Your task to perform on an android device: change the clock display to analog Image 0: 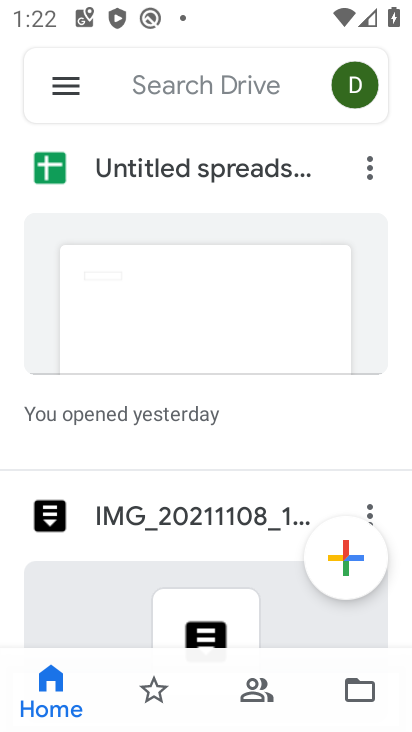
Step 0: press home button
Your task to perform on an android device: change the clock display to analog Image 1: 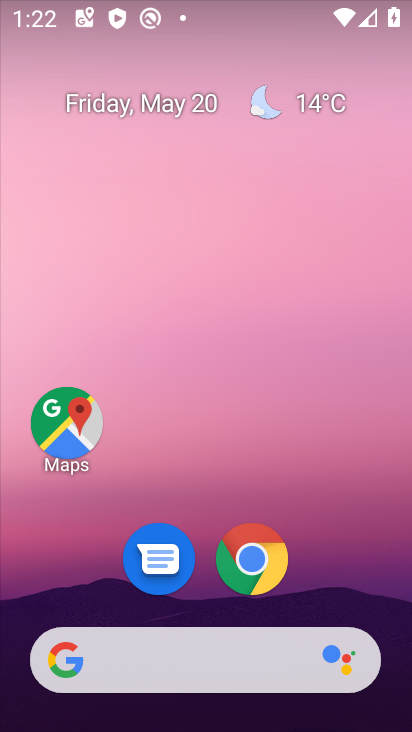
Step 1: drag from (361, 595) to (324, 190)
Your task to perform on an android device: change the clock display to analog Image 2: 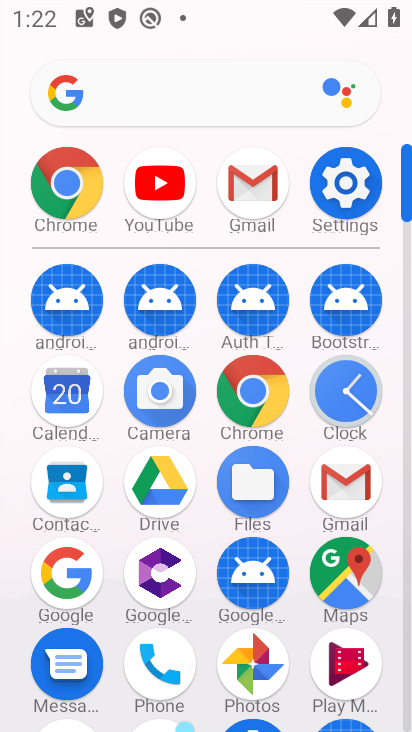
Step 2: click (340, 198)
Your task to perform on an android device: change the clock display to analog Image 3: 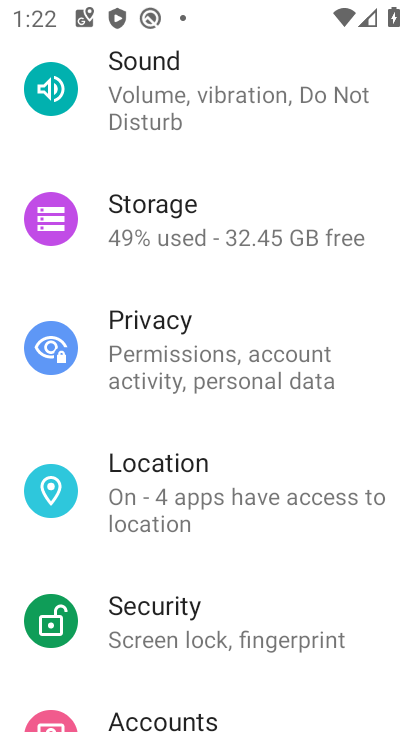
Step 3: press home button
Your task to perform on an android device: change the clock display to analog Image 4: 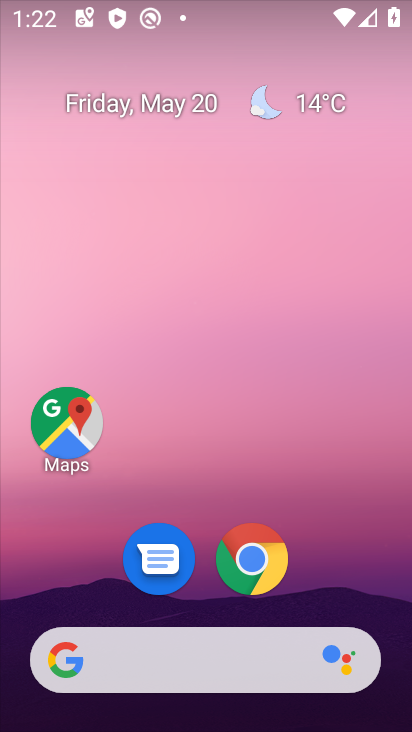
Step 4: drag from (335, 589) to (292, 37)
Your task to perform on an android device: change the clock display to analog Image 5: 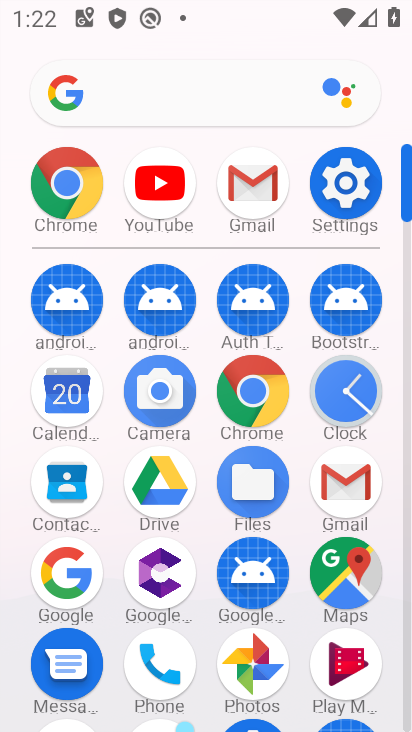
Step 5: click (321, 399)
Your task to perform on an android device: change the clock display to analog Image 6: 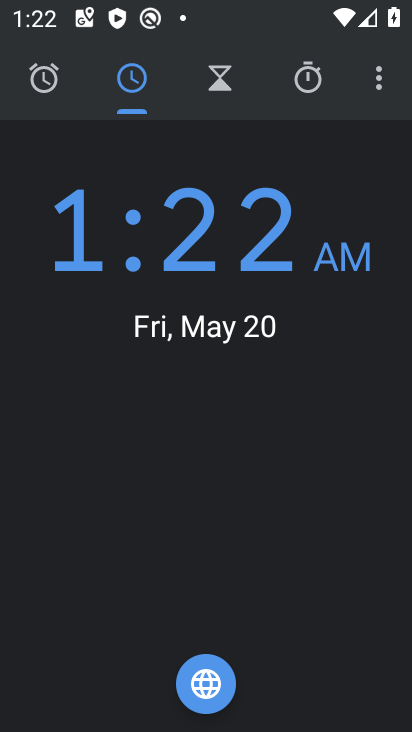
Step 6: click (369, 69)
Your task to perform on an android device: change the clock display to analog Image 7: 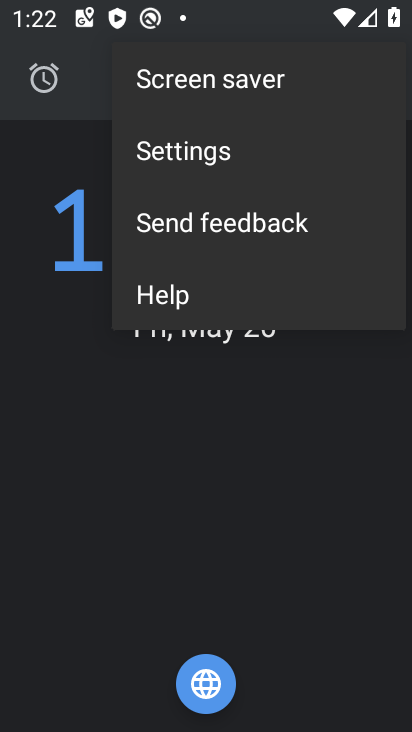
Step 7: click (234, 162)
Your task to perform on an android device: change the clock display to analog Image 8: 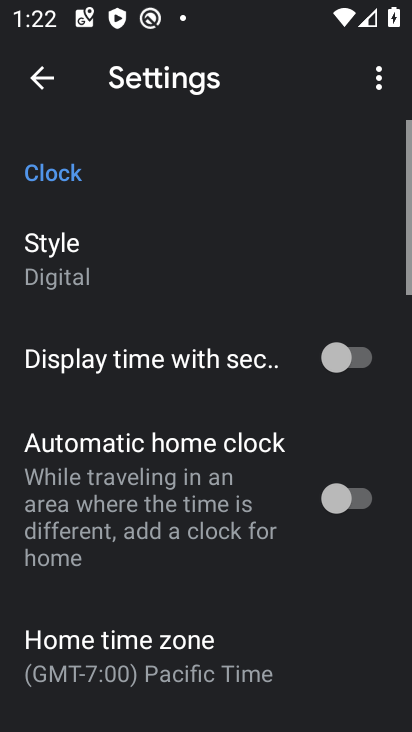
Step 8: click (173, 252)
Your task to perform on an android device: change the clock display to analog Image 9: 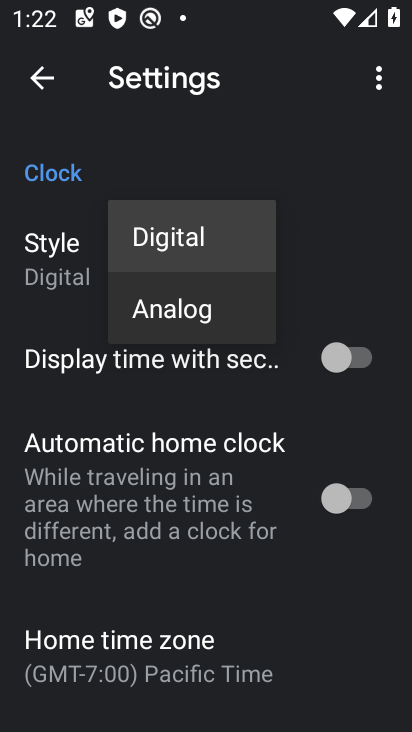
Step 9: click (188, 290)
Your task to perform on an android device: change the clock display to analog Image 10: 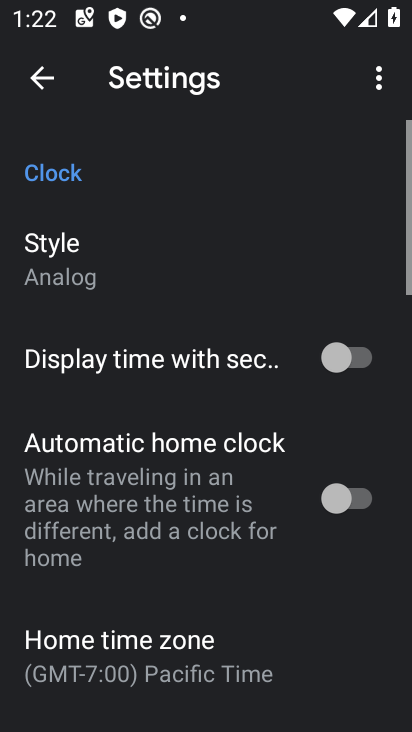
Step 10: task complete